Your task to perform on an android device: toggle translation in the chrome app Image 0: 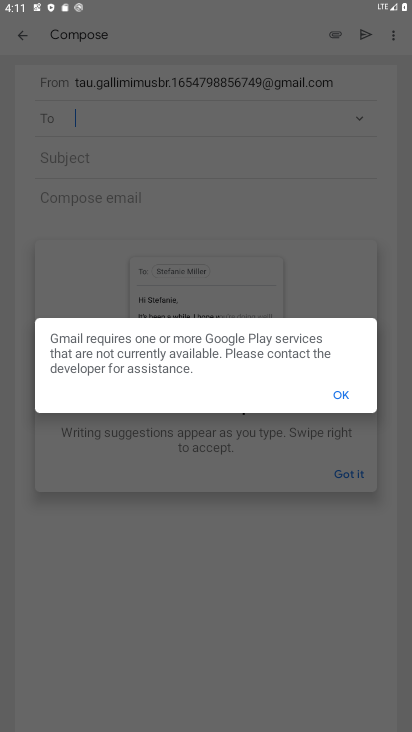
Step 0: press home button
Your task to perform on an android device: toggle translation in the chrome app Image 1: 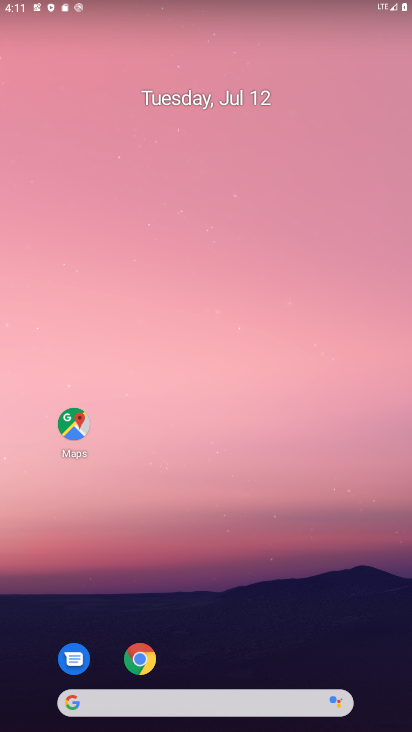
Step 1: click (139, 660)
Your task to perform on an android device: toggle translation in the chrome app Image 2: 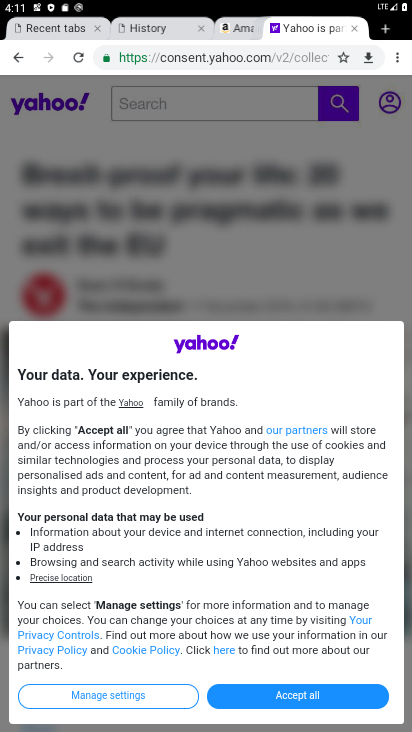
Step 2: click (397, 58)
Your task to perform on an android device: toggle translation in the chrome app Image 3: 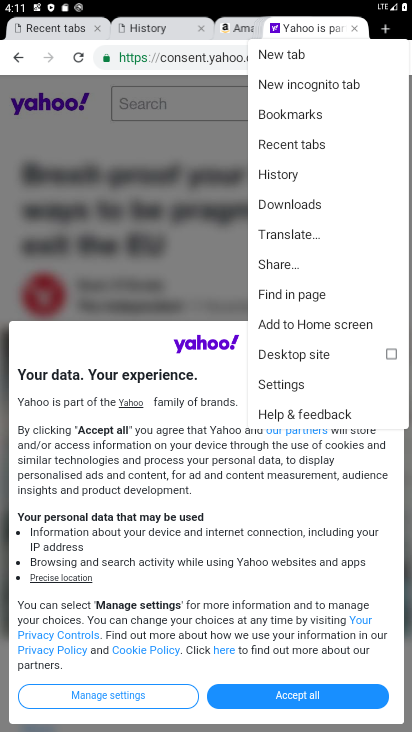
Step 3: click (280, 380)
Your task to perform on an android device: toggle translation in the chrome app Image 4: 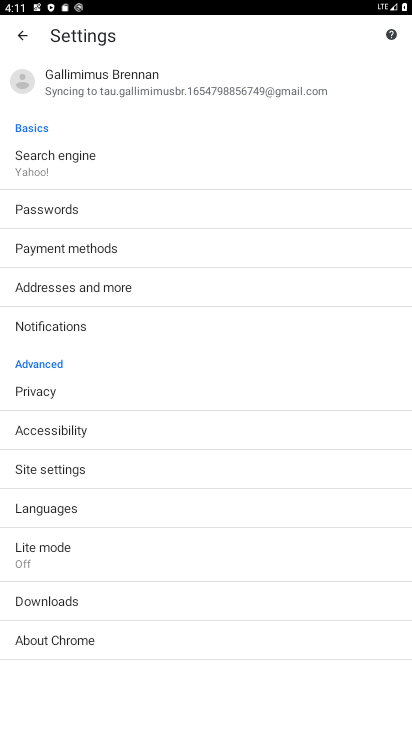
Step 4: click (45, 512)
Your task to perform on an android device: toggle translation in the chrome app Image 5: 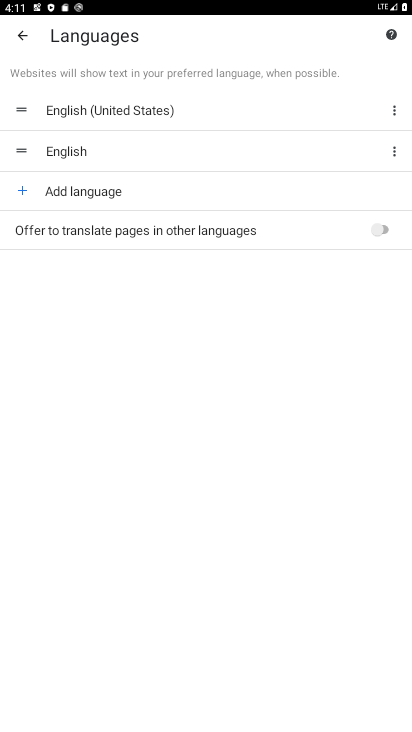
Step 5: click (381, 226)
Your task to perform on an android device: toggle translation in the chrome app Image 6: 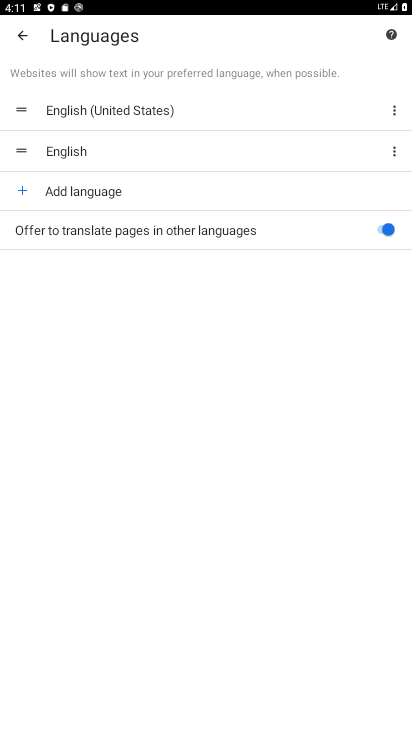
Step 6: task complete